Your task to perform on an android device: Search for Mexican restaurants on Maps Image 0: 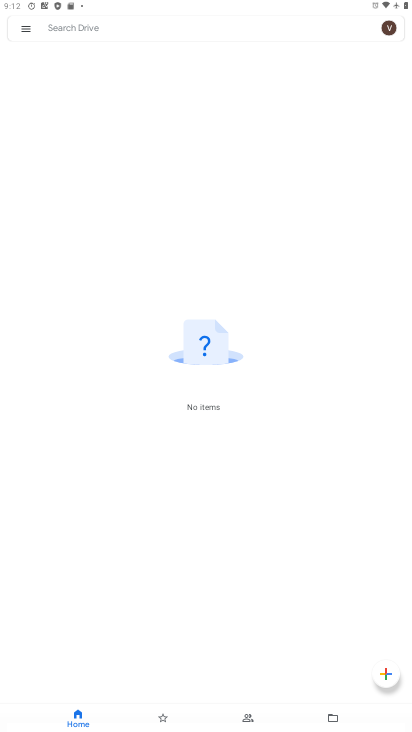
Step 0: press home button
Your task to perform on an android device: Search for Mexican restaurants on Maps Image 1: 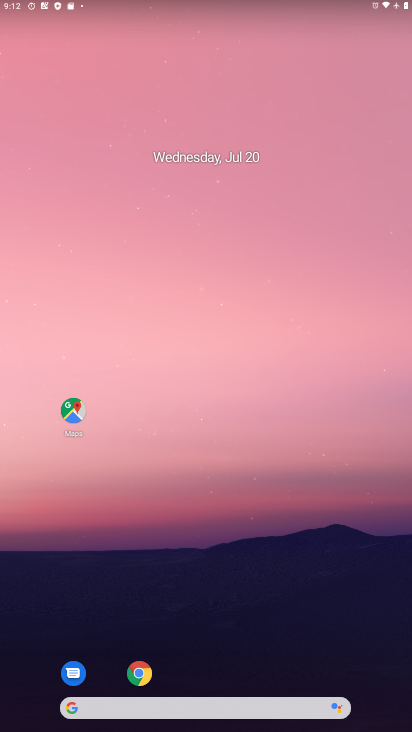
Step 1: click (214, 673)
Your task to perform on an android device: Search for Mexican restaurants on Maps Image 2: 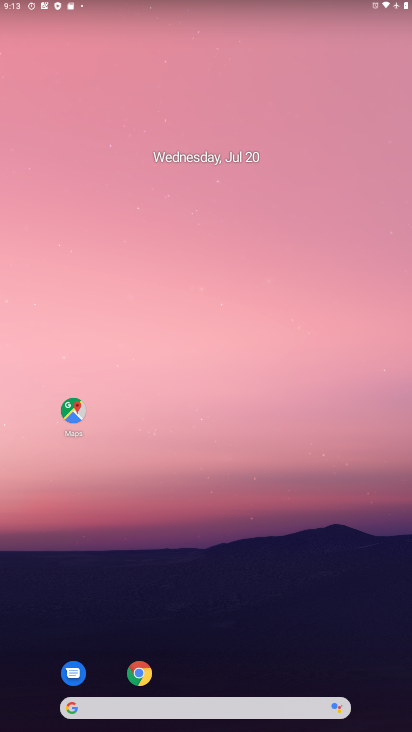
Step 2: click (73, 413)
Your task to perform on an android device: Search for Mexican restaurants on Maps Image 3: 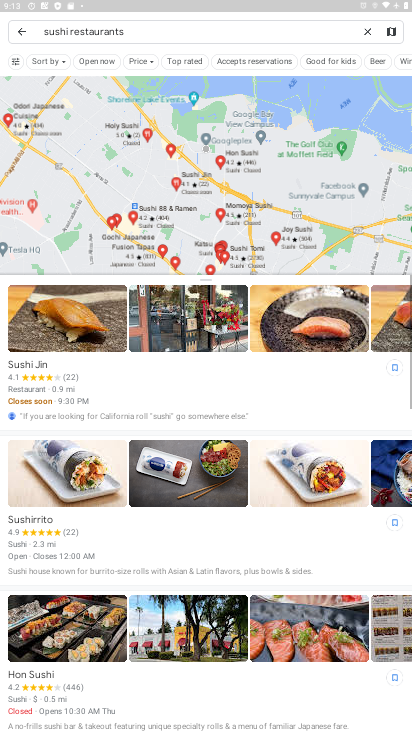
Step 3: click (361, 30)
Your task to perform on an android device: Search for Mexican restaurants on Maps Image 4: 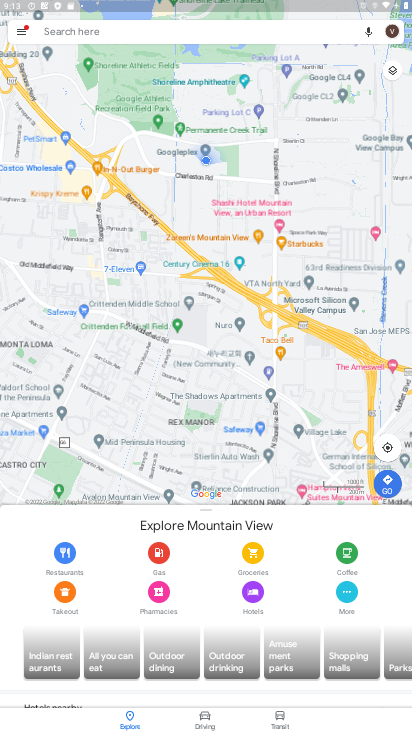
Step 4: click (268, 25)
Your task to perform on an android device: Search for Mexican restaurants on Maps Image 5: 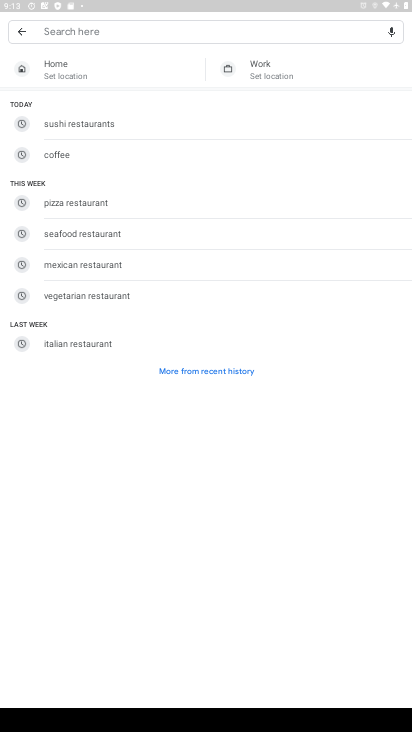
Step 5: click (90, 266)
Your task to perform on an android device: Search for Mexican restaurants on Maps Image 6: 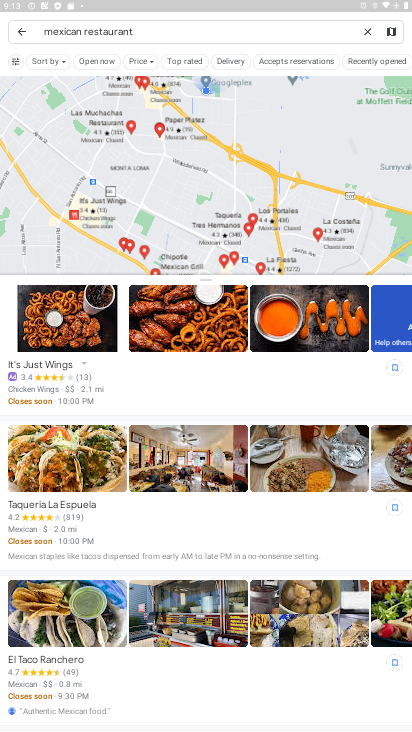
Step 6: task complete